Your task to perform on an android device: delete a single message in the gmail app Image 0: 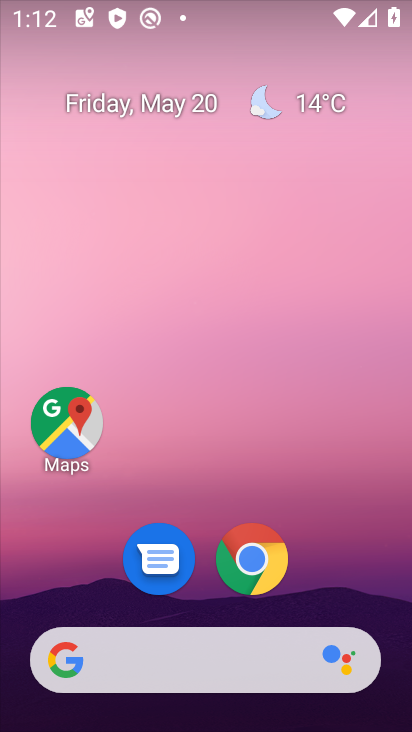
Step 0: drag from (369, 590) to (321, 254)
Your task to perform on an android device: delete a single message in the gmail app Image 1: 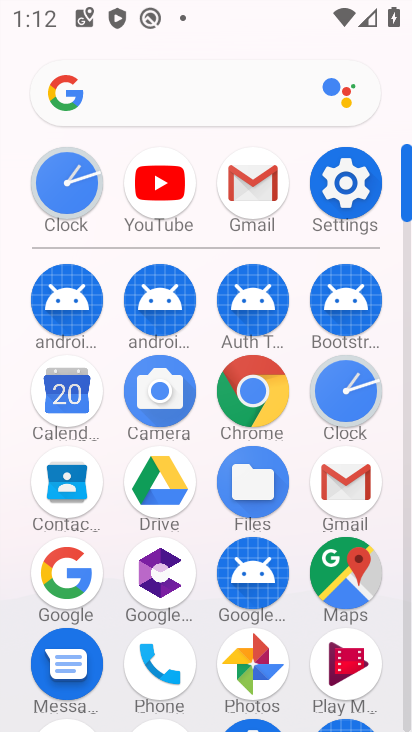
Step 1: click (257, 176)
Your task to perform on an android device: delete a single message in the gmail app Image 2: 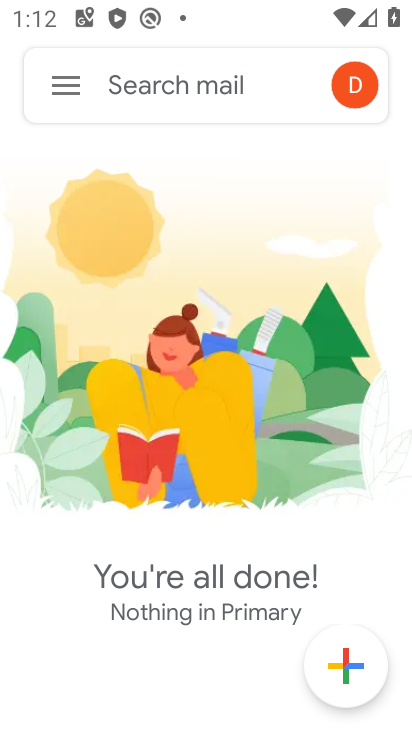
Step 2: click (75, 84)
Your task to perform on an android device: delete a single message in the gmail app Image 3: 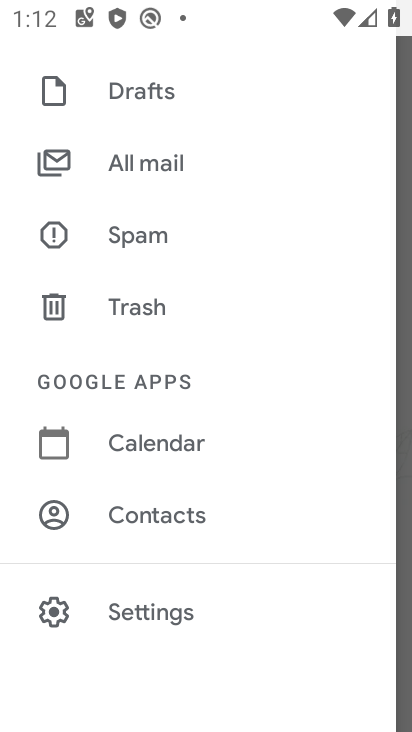
Step 3: click (112, 165)
Your task to perform on an android device: delete a single message in the gmail app Image 4: 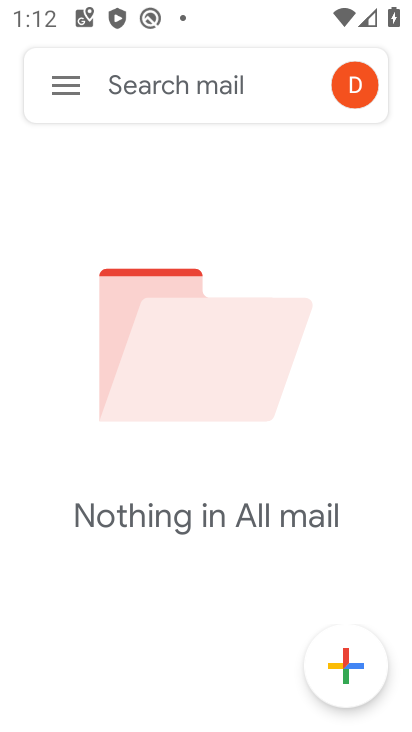
Step 4: task complete